Your task to perform on an android device: check storage Image 0: 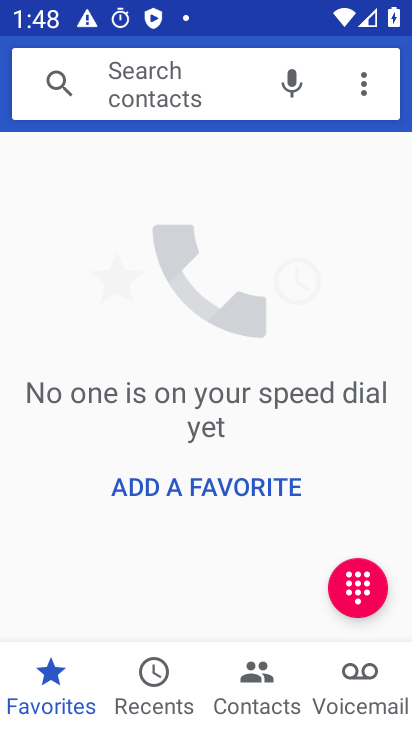
Step 0: press home button
Your task to perform on an android device: check storage Image 1: 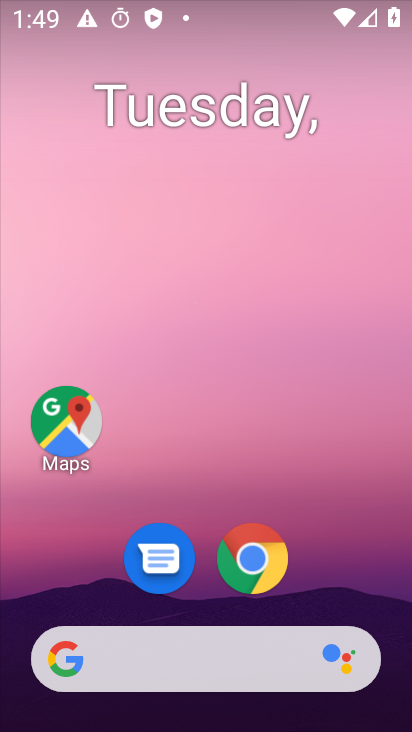
Step 1: drag from (151, 523) to (120, 59)
Your task to perform on an android device: check storage Image 2: 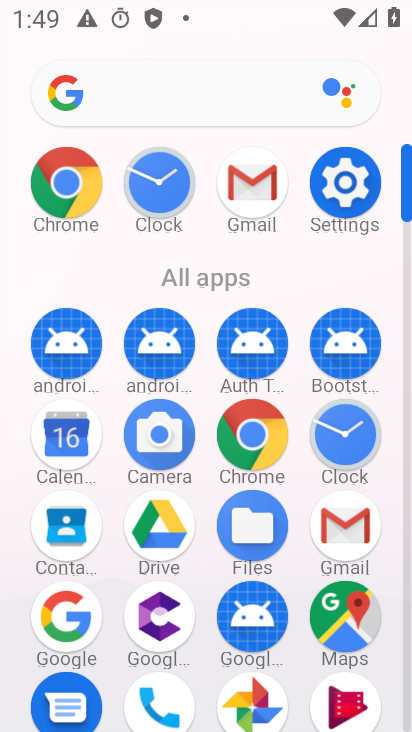
Step 2: click (327, 187)
Your task to perform on an android device: check storage Image 3: 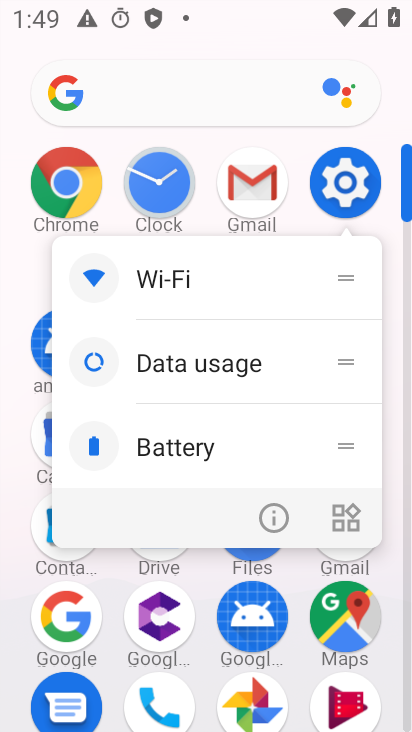
Step 3: click (327, 187)
Your task to perform on an android device: check storage Image 4: 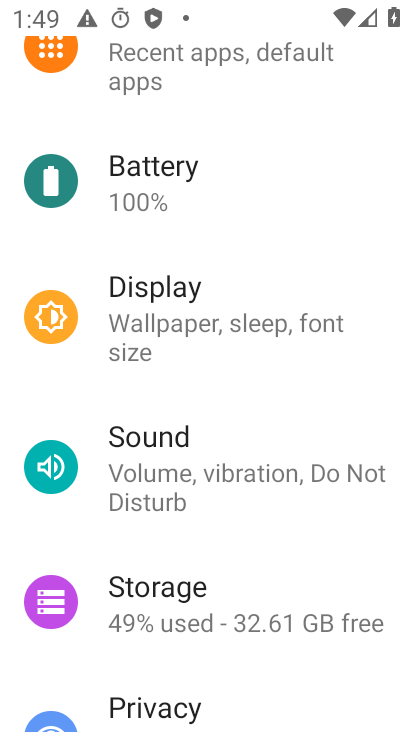
Step 4: click (218, 635)
Your task to perform on an android device: check storage Image 5: 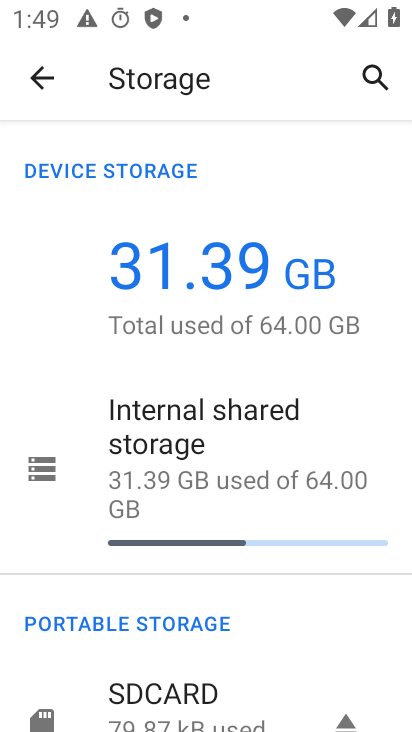
Step 5: drag from (210, 628) to (190, 179)
Your task to perform on an android device: check storage Image 6: 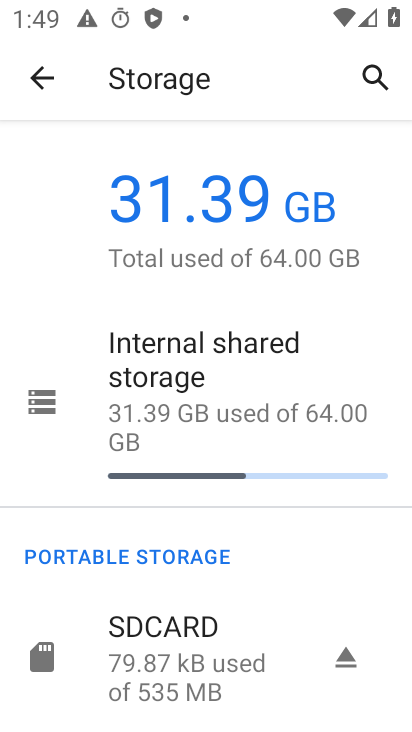
Step 6: click (272, 618)
Your task to perform on an android device: check storage Image 7: 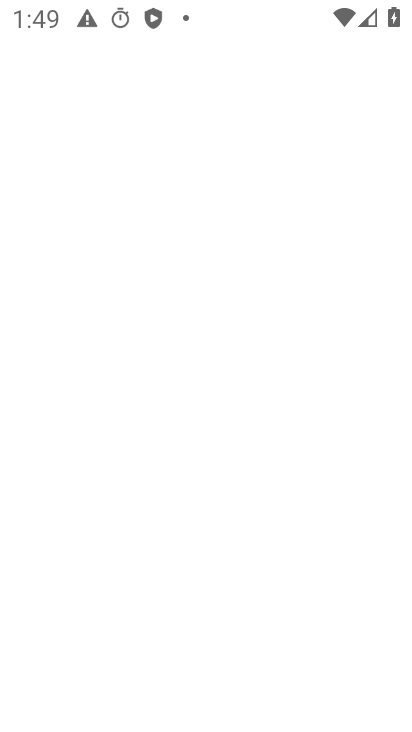
Step 7: task complete